Your task to perform on an android device: clear all cookies in the chrome app Image 0: 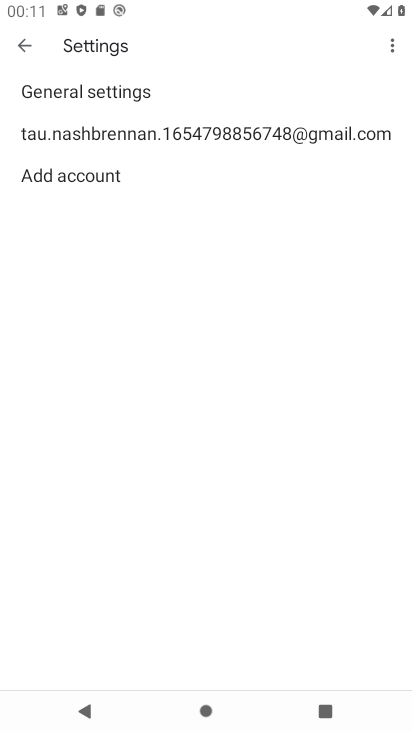
Step 0: click (30, 37)
Your task to perform on an android device: clear all cookies in the chrome app Image 1: 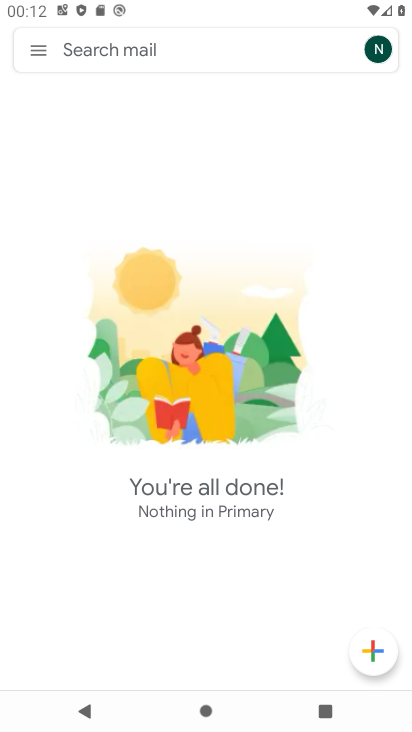
Step 1: press back button
Your task to perform on an android device: clear all cookies in the chrome app Image 2: 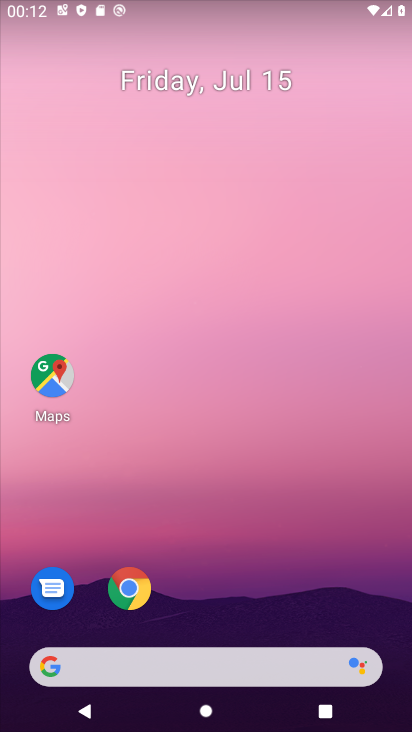
Step 2: click (127, 581)
Your task to perform on an android device: clear all cookies in the chrome app Image 3: 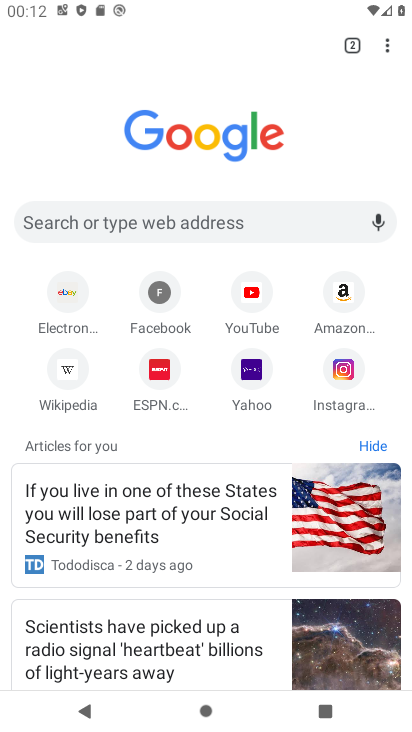
Step 3: drag from (382, 42) to (246, 243)
Your task to perform on an android device: clear all cookies in the chrome app Image 4: 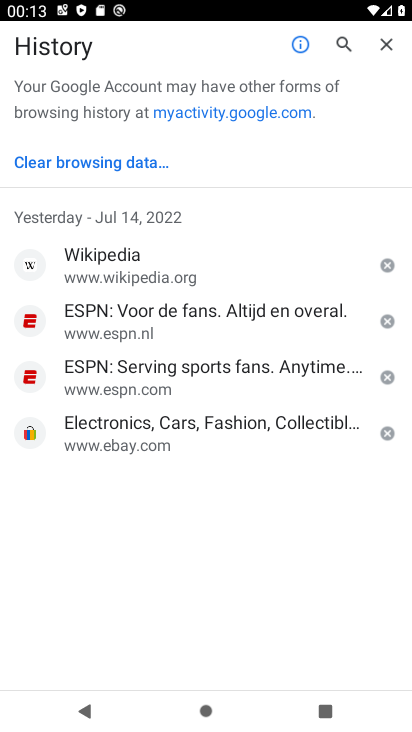
Step 4: click (90, 175)
Your task to perform on an android device: clear all cookies in the chrome app Image 5: 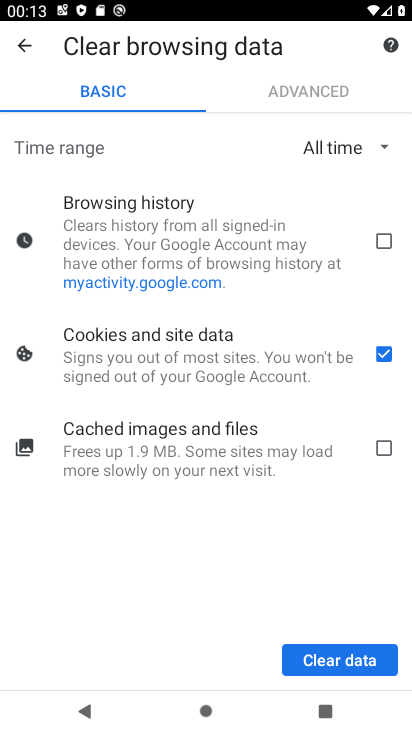
Step 5: click (347, 656)
Your task to perform on an android device: clear all cookies in the chrome app Image 6: 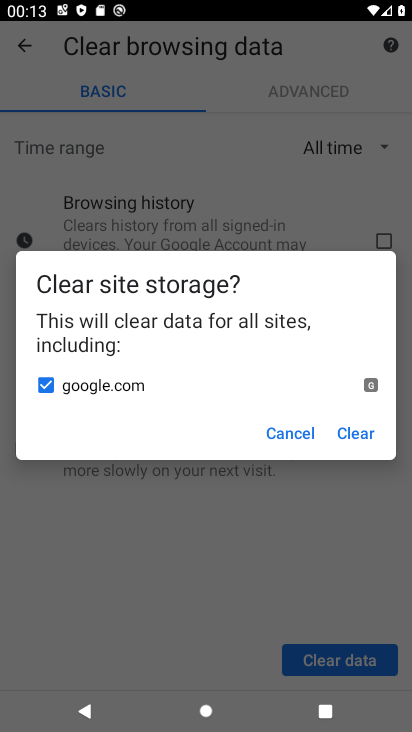
Step 6: click (362, 436)
Your task to perform on an android device: clear all cookies in the chrome app Image 7: 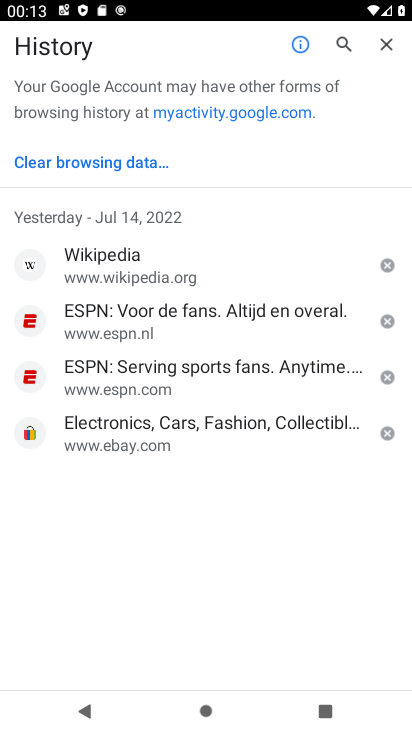
Step 7: task complete